Your task to perform on an android device: toggle notification dots Image 0: 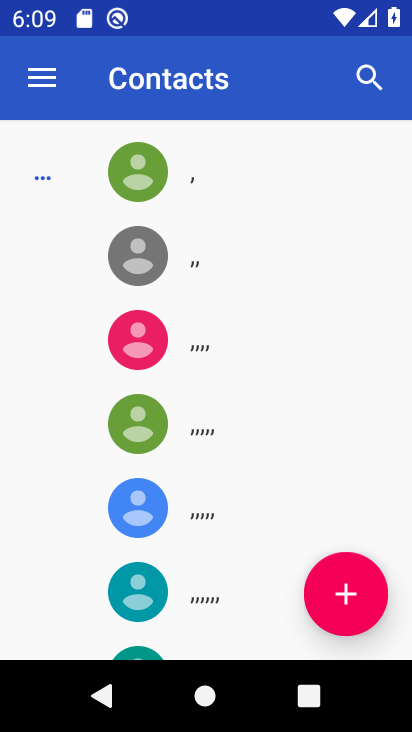
Step 0: press home button
Your task to perform on an android device: toggle notification dots Image 1: 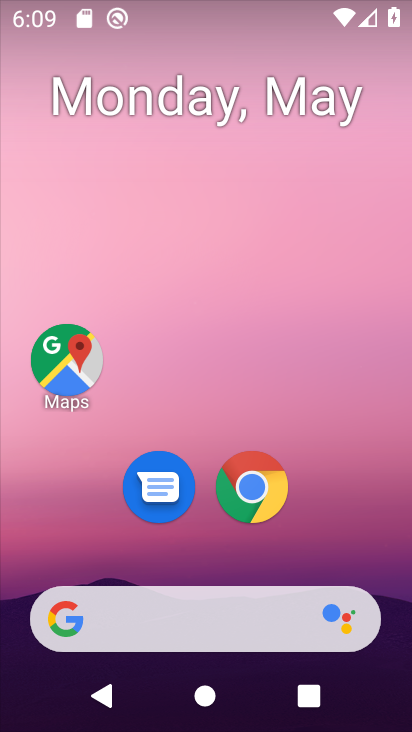
Step 1: drag from (197, 551) to (246, 54)
Your task to perform on an android device: toggle notification dots Image 2: 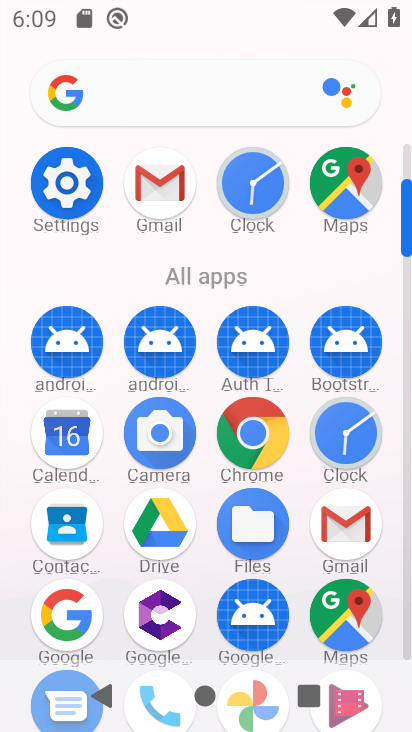
Step 2: click (61, 173)
Your task to perform on an android device: toggle notification dots Image 3: 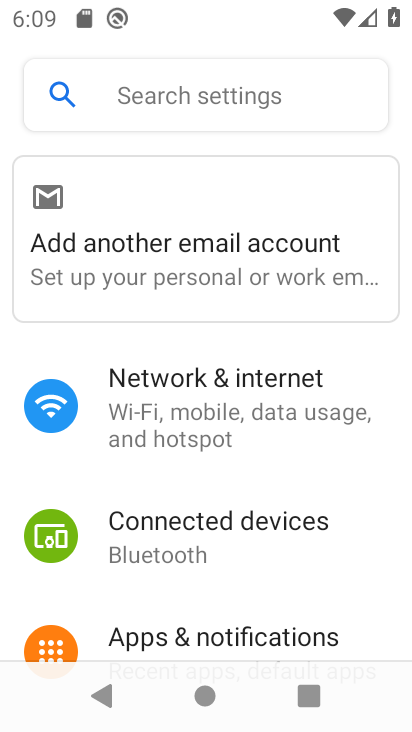
Step 3: click (208, 630)
Your task to perform on an android device: toggle notification dots Image 4: 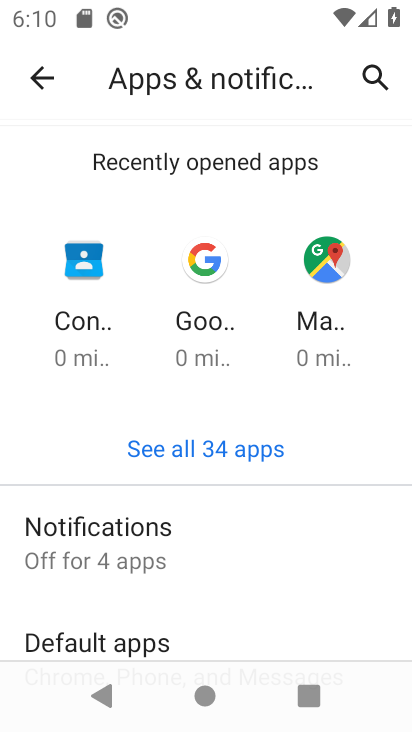
Step 4: click (175, 539)
Your task to perform on an android device: toggle notification dots Image 5: 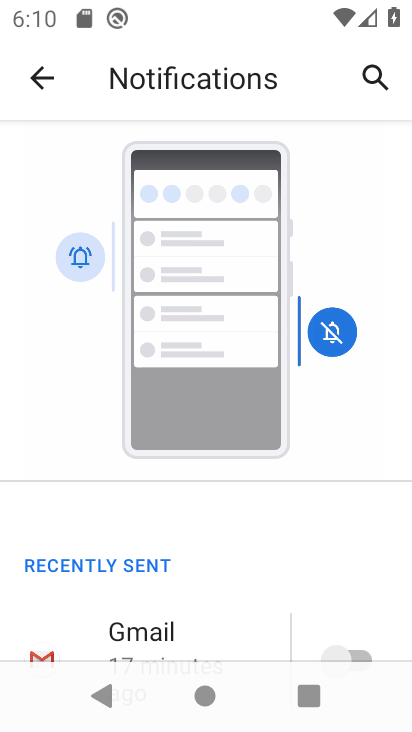
Step 5: drag from (207, 626) to (268, 212)
Your task to perform on an android device: toggle notification dots Image 6: 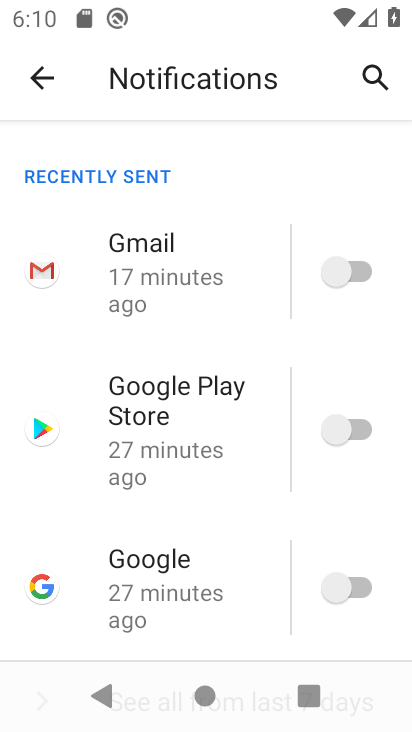
Step 6: drag from (222, 635) to (262, 110)
Your task to perform on an android device: toggle notification dots Image 7: 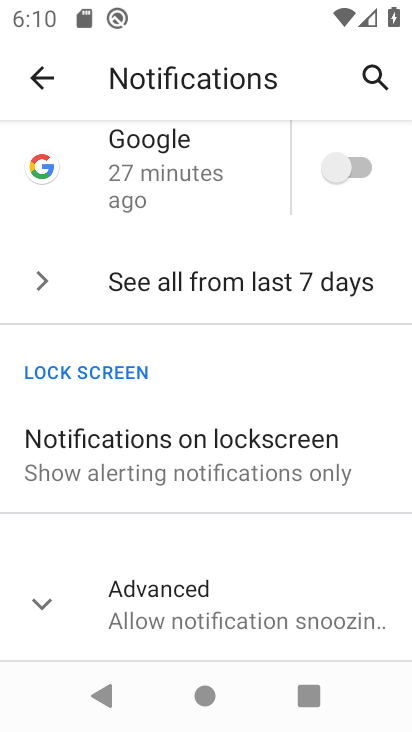
Step 7: click (52, 600)
Your task to perform on an android device: toggle notification dots Image 8: 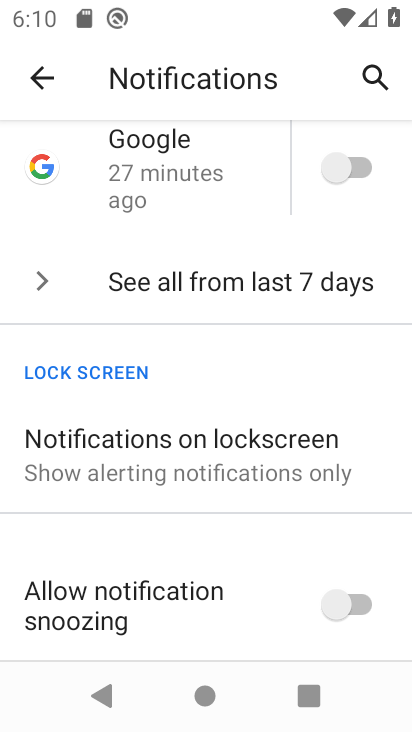
Step 8: drag from (210, 629) to (303, 156)
Your task to perform on an android device: toggle notification dots Image 9: 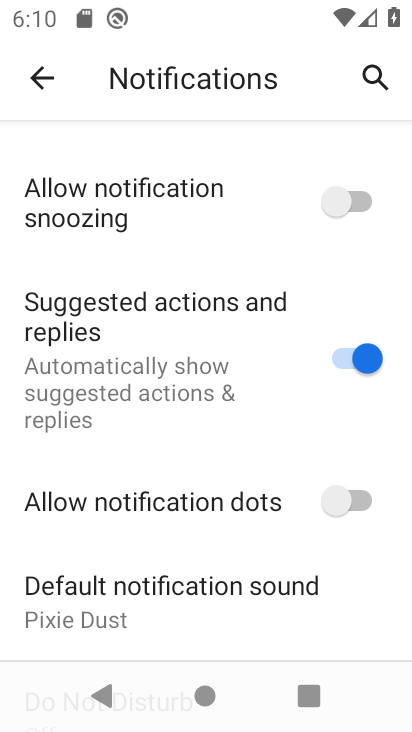
Step 9: click (344, 490)
Your task to perform on an android device: toggle notification dots Image 10: 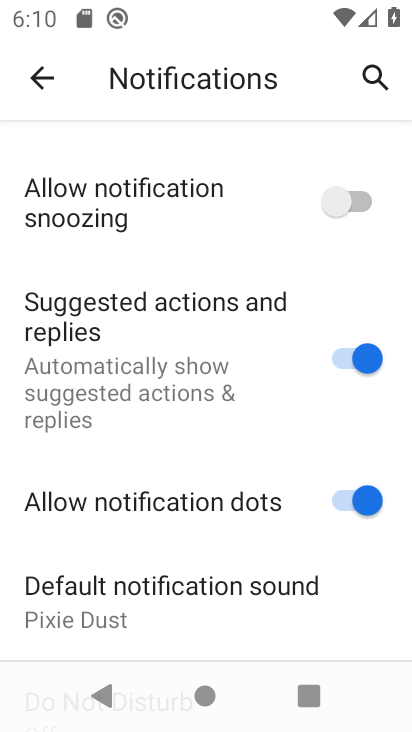
Step 10: task complete